Your task to perform on an android device: turn on javascript in the chrome app Image 0: 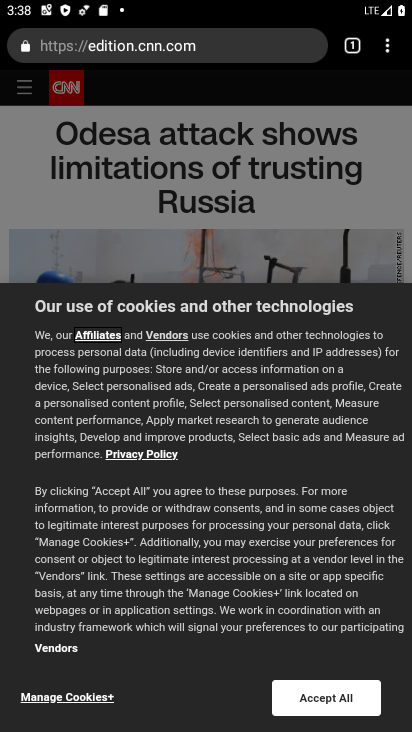
Step 0: click (381, 43)
Your task to perform on an android device: turn on javascript in the chrome app Image 1: 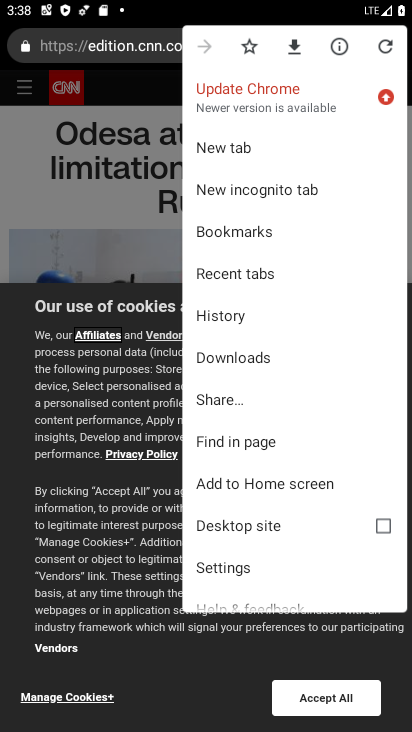
Step 1: click (229, 570)
Your task to perform on an android device: turn on javascript in the chrome app Image 2: 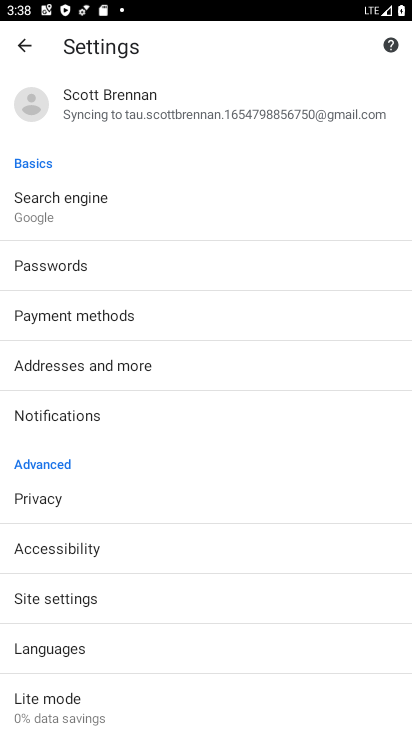
Step 2: drag from (103, 591) to (142, 198)
Your task to perform on an android device: turn on javascript in the chrome app Image 3: 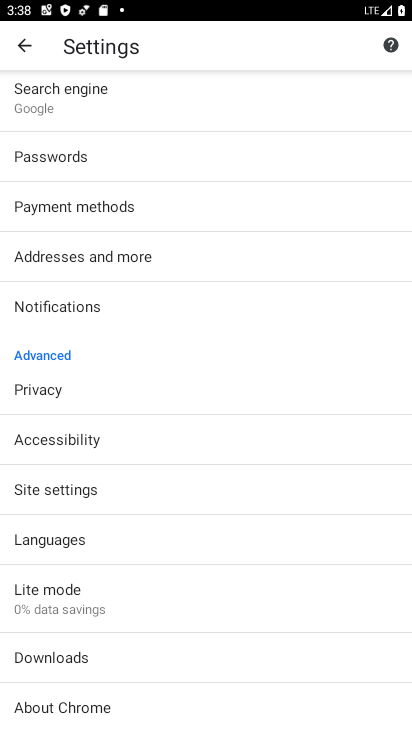
Step 3: click (83, 489)
Your task to perform on an android device: turn on javascript in the chrome app Image 4: 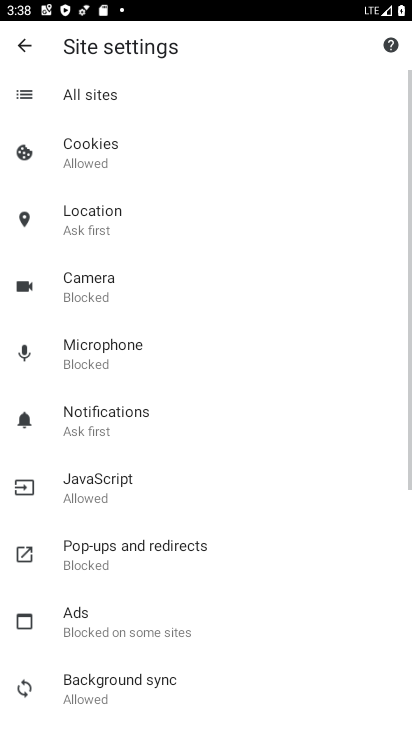
Step 4: click (88, 490)
Your task to perform on an android device: turn on javascript in the chrome app Image 5: 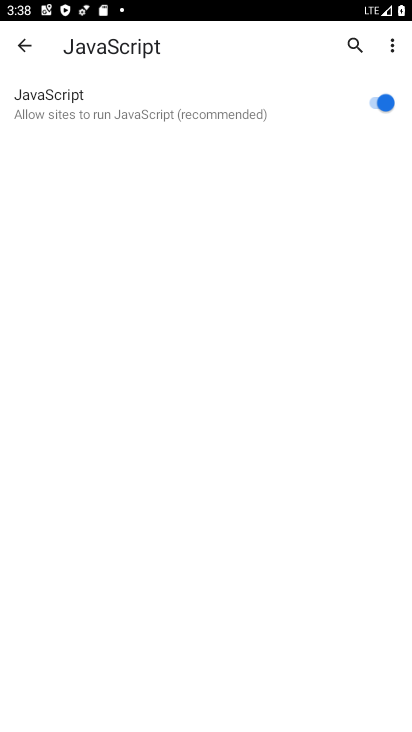
Step 5: task complete